Your task to perform on an android device: Go to privacy settings Image 0: 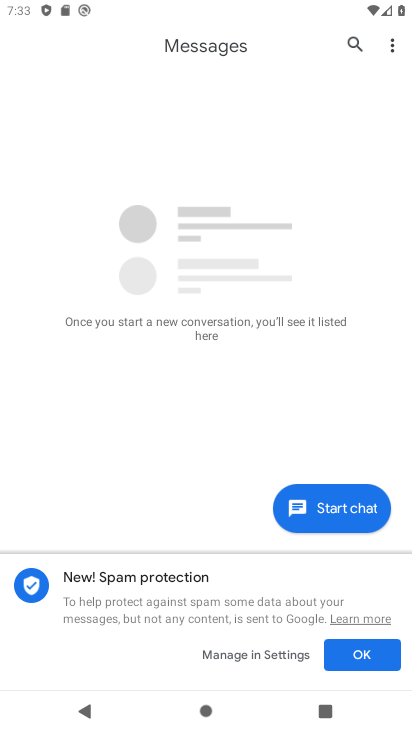
Step 0: drag from (254, 466) to (184, 130)
Your task to perform on an android device: Go to privacy settings Image 1: 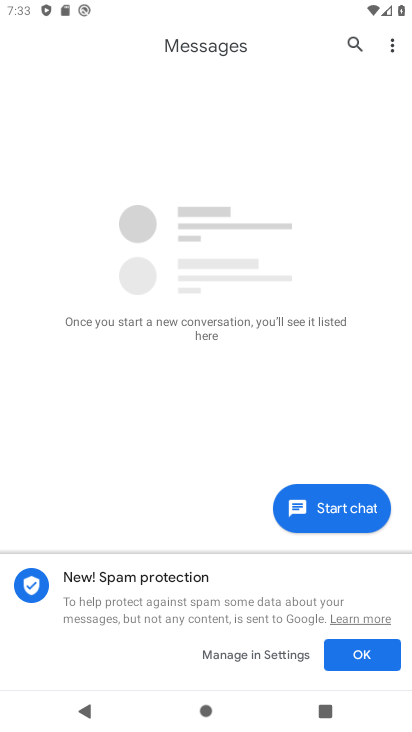
Step 1: press home button
Your task to perform on an android device: Go to privacy settings Image 2: 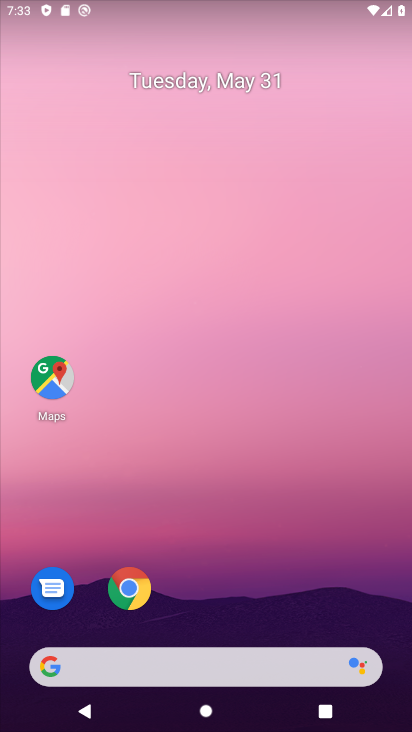
Step 2: drag from (272, 546) to (236, 77)
Your task to perform on an android device: Go to privacy settings Image 3: 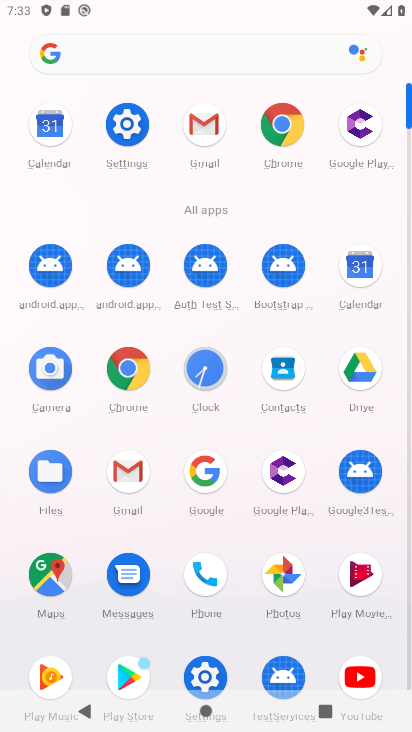
Step 3: click (127, 116)
Your task to perform on an android device: Go to privacy settings Image 4: 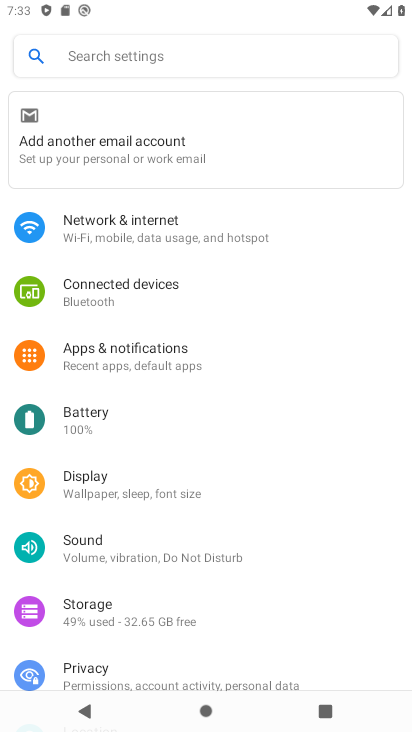
Step 4: click (91, 664)
Your task to perform on an android device: Go to privacy settings Image 5: 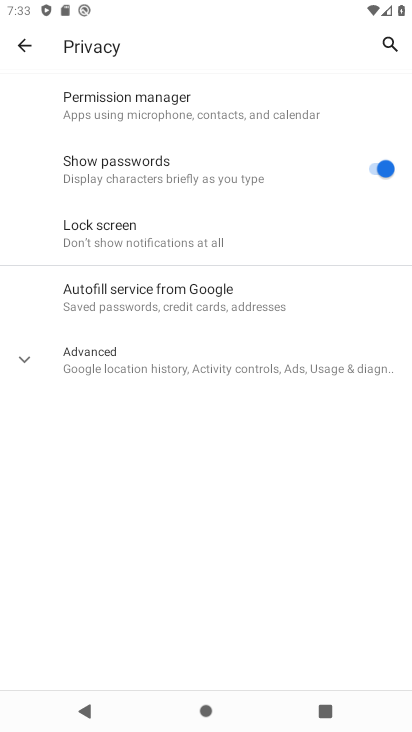
Step 5: task complete